Your task to perform on an android device: Go to Reddit.com Image 0: 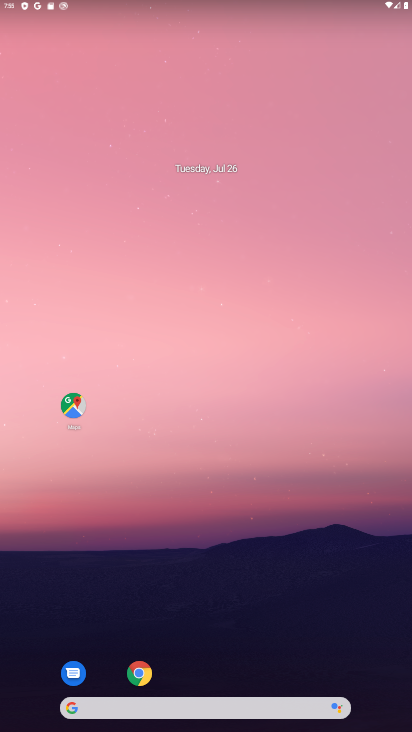
Step 0: click (140, 678)
Your task to perform on an android device: Go to Reddit.com Image 1: 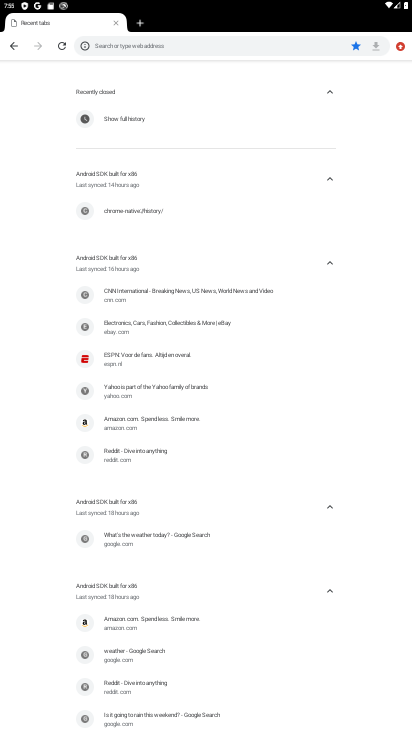
Step 1: click (135, 19)
Your task to perform on an android device: Go to Reddit.com Image 2: 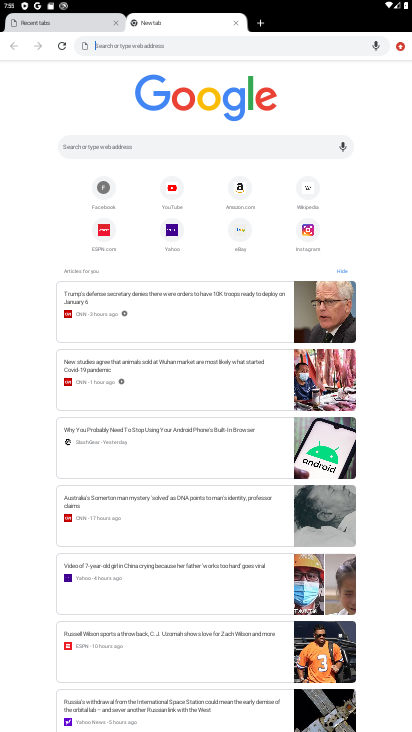
Step 2: type "Reddit.com"
Your task to perform on an android device: Go to Reddit.com Image 3: 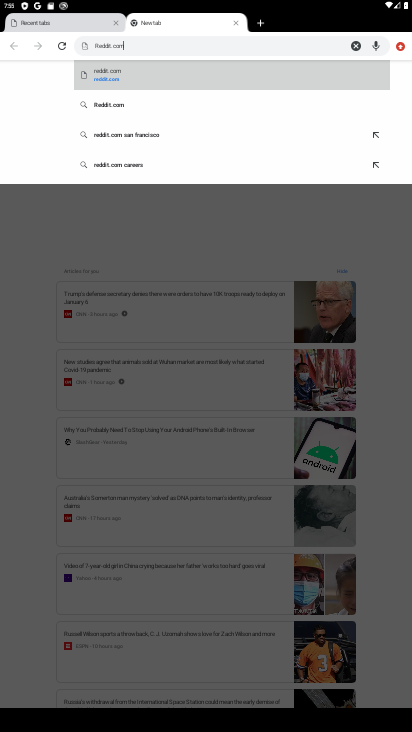
Step 3: type ""
Your task to perform on an android device: Go to Reddit.com Image 4: 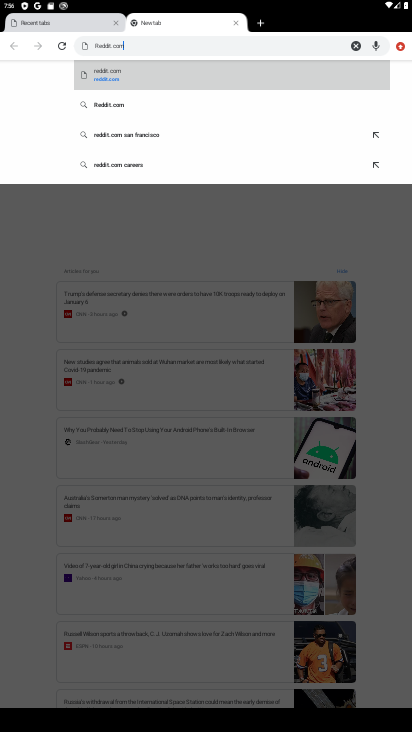
Step 4: click (120, 68)
Your task to perform on an android device: Go to Reddit.com Image 5: 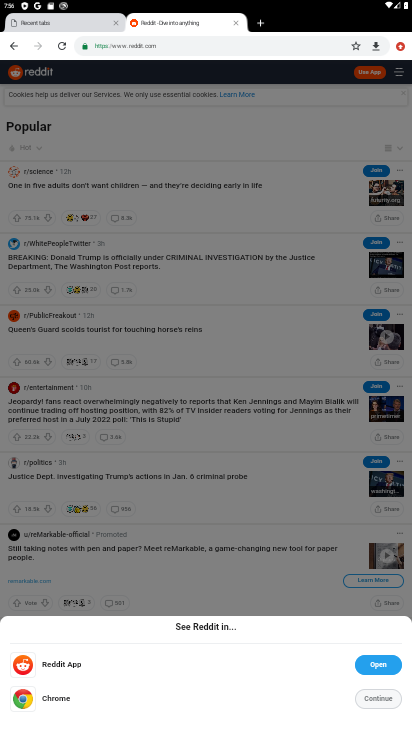
Step 5: task complete